Your task to perform on an android device: add a contact Image 0: 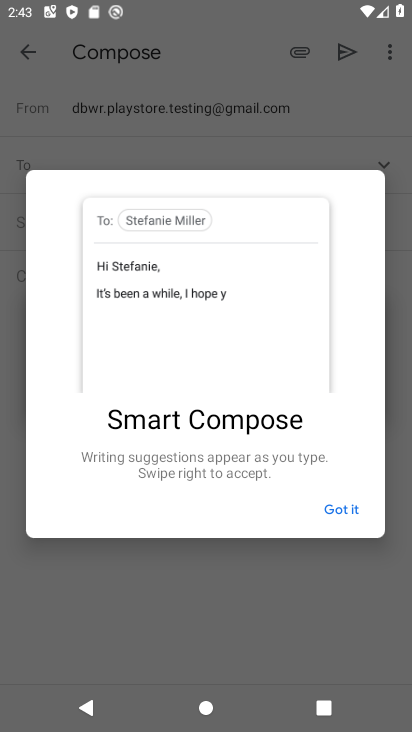
Step 0: press home button
Your task to perform on an android device: add a contact Image 1: 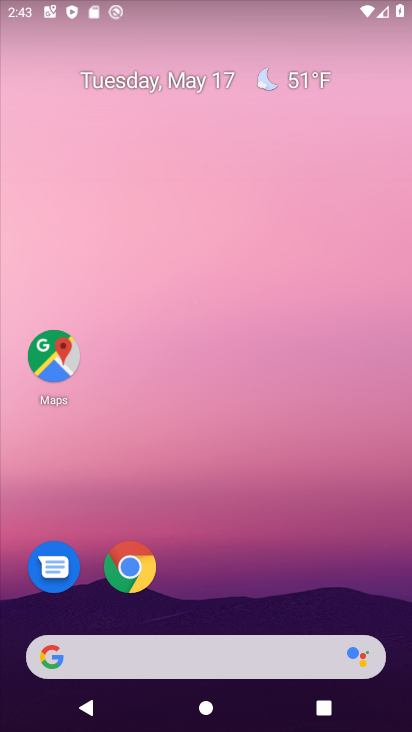
Step 1: drag from (208, 658) to (242, 115)
Your task to perform on an android device: add a contact Image 2: 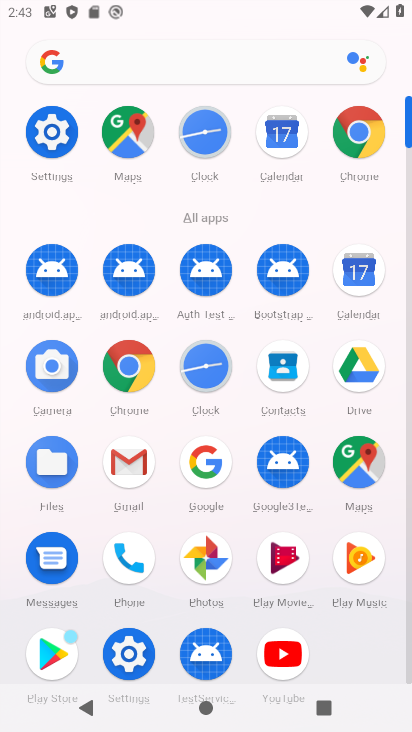
Step 2: click (276, 370)
Your task to perform on an android device: add a contact Image 3: 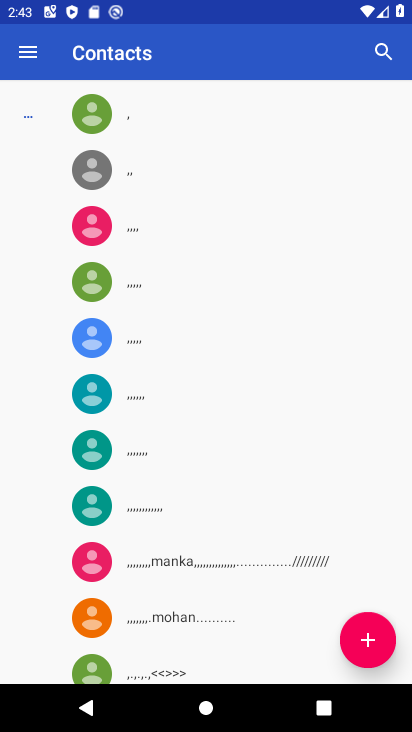
Step 3: click (362, 634)
Your task to perform on an android device: add a contact Image 4: 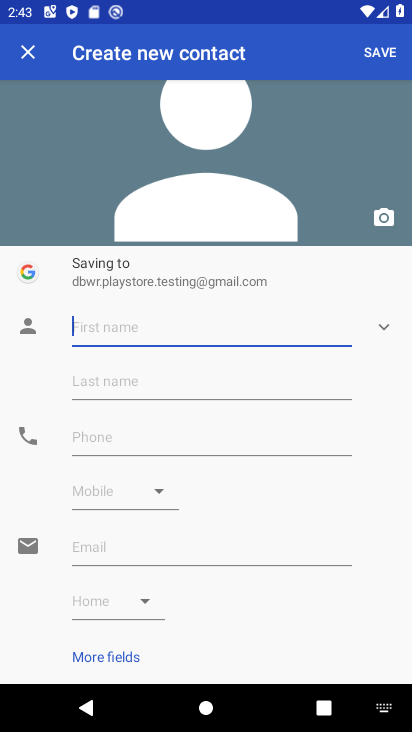
Step 4: type "bvnxx"
Your task to perform on an android device: add a contact Image 5: 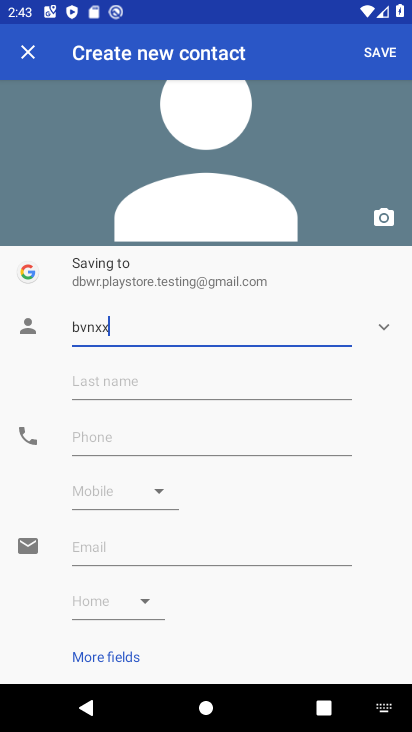
Step 5: click (159, 437)
Your task to perform on an android device: add a contact Image 6: 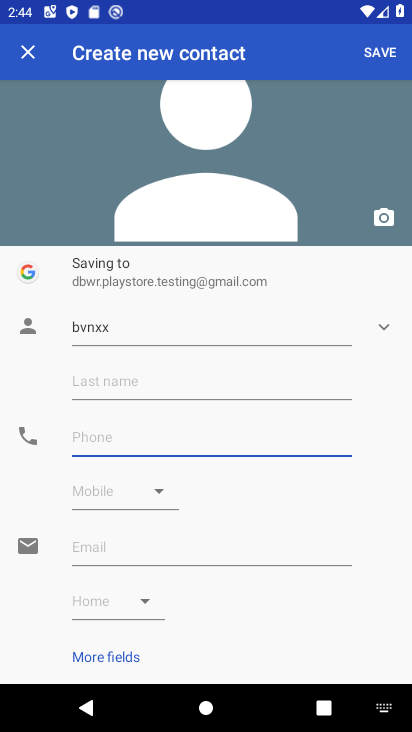
Step 6: type "2343534"
Your task to perform on an android device: add a contact Image 7: 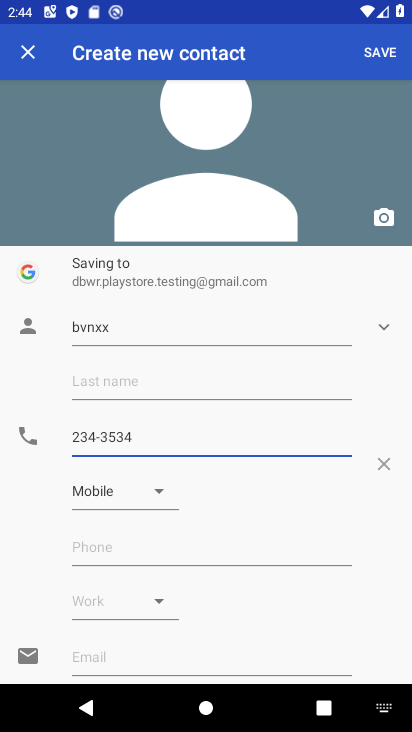
Step 7: task complete